Your task to perform on an android device: Play the last video I watched on Youtube Image 0: 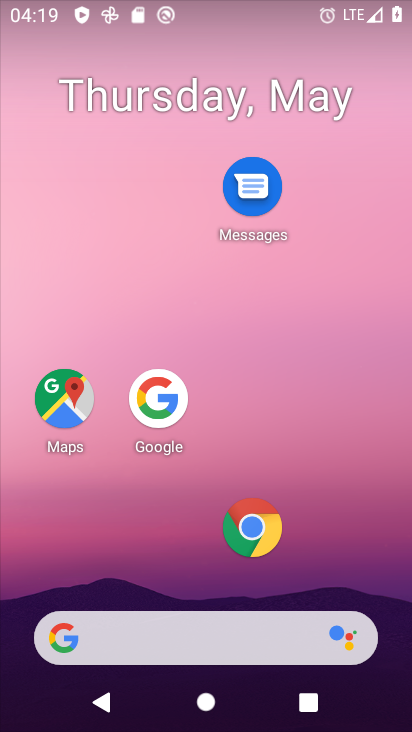
Step 0: drag from (204, 599) to (209, 153)
Your task to perform on an android device: Play the last video I watched on Youtube Image 1: 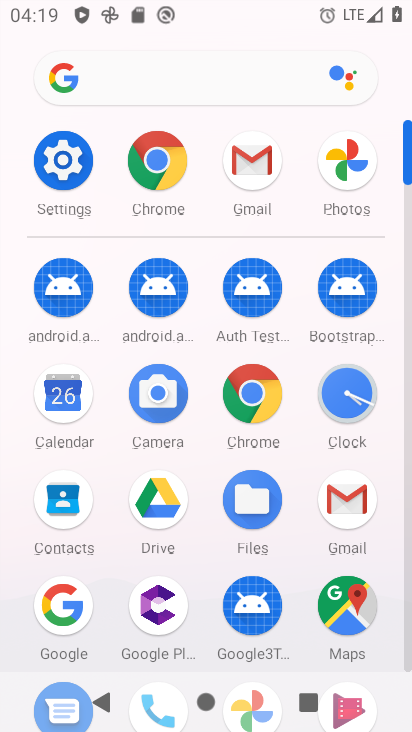
Step 1: drag from (207, 641) to (185, 138)
Your task to perform on an android device: Play the last video I watched on Youtube Image 2: 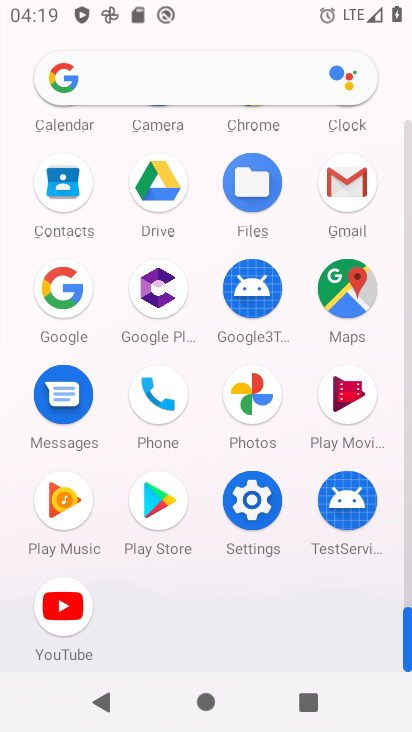
Step 2: click (72, 591)
Your task to perform on an android device: Play the last video I watched on Youtube Image 3: 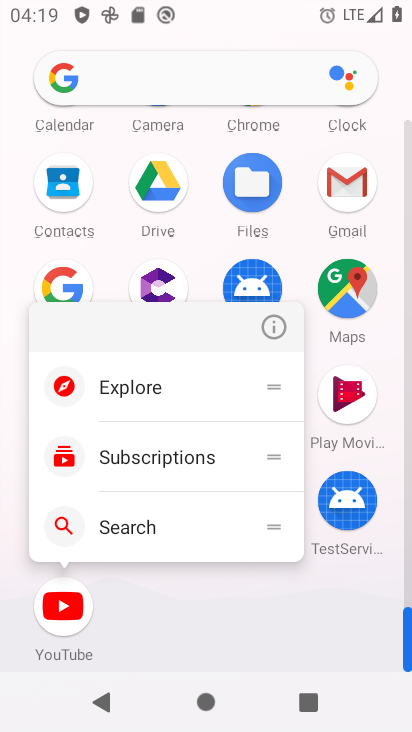
Step 3: click (270, 322)
Your task to perform on an android device: Play the last video I watched on Youtube Image 4: 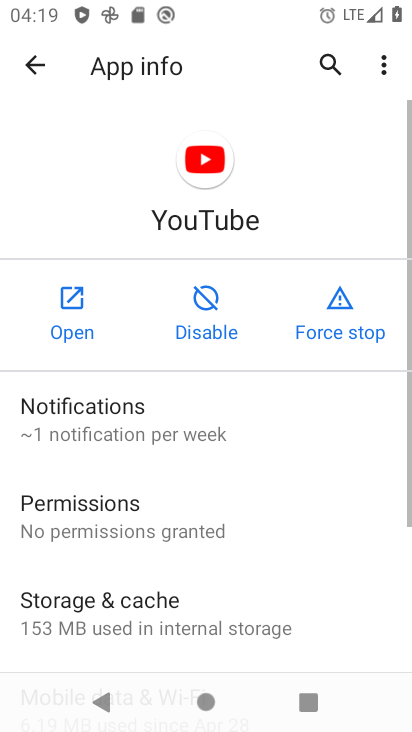
Step 4: click (64, 312)
Your task to perform on an android device: Play the last video I watched on Youtube Image 5: 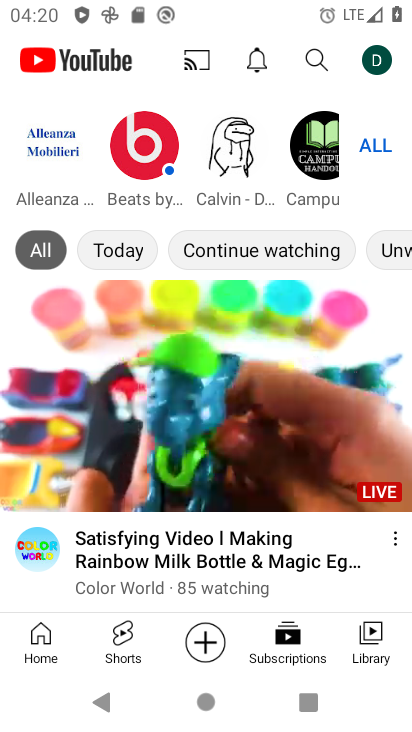
Step 5: click (353, 629)
Your task to perform on an android device: Play the last video I watched on Youtube Image 6: 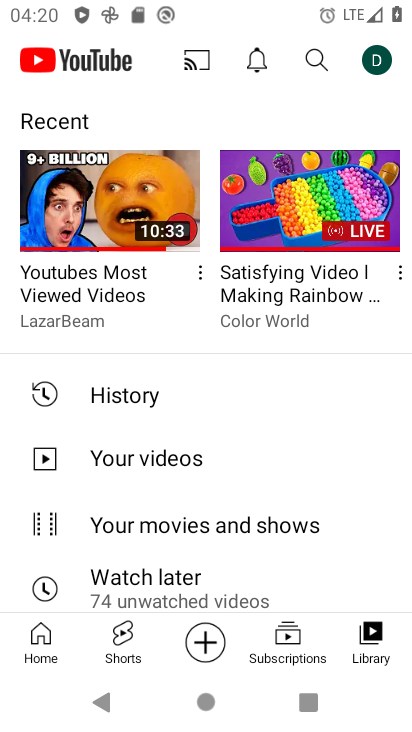
Step 6: click (93, 217)
Your task to perform on an android device: Play the last video I watched on Youtube Image 7: 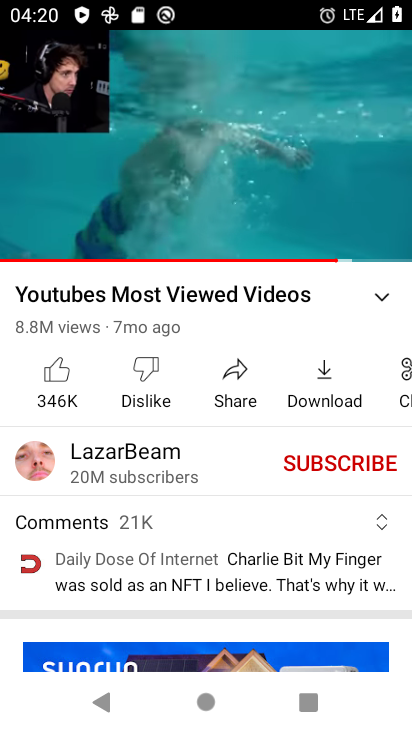
Step 7: task complete